Your task to perform on an android device: See recent photos Image 0: 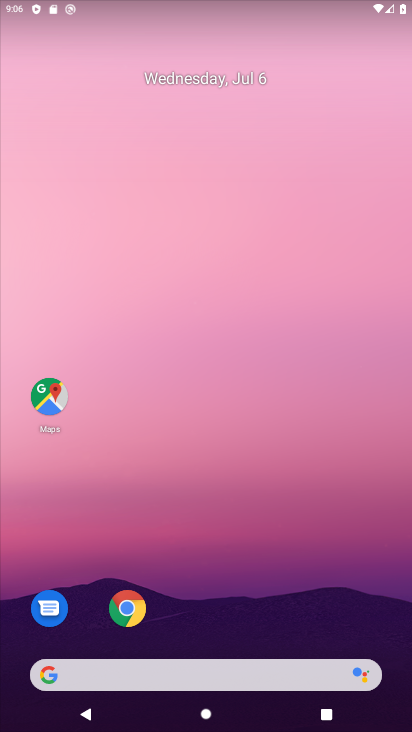
Step 0: drag from (194, 653) to (184, 61)
Your task to perform on an android device: See recent photos Image 1: 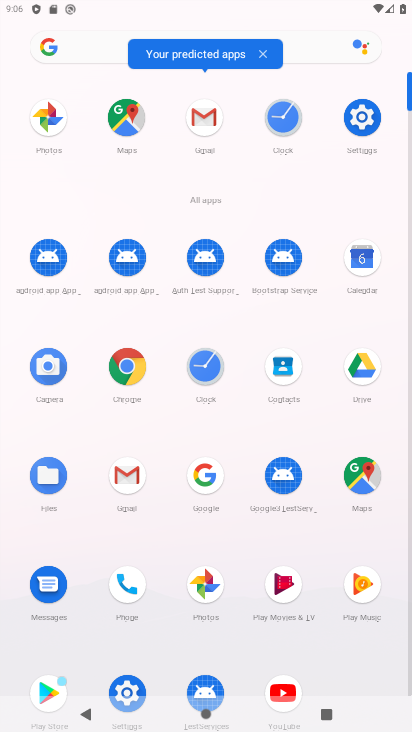
Step 1: drag from (201, 663) to (121, 244)
Your task to perform on an android device: See recent photos Image 2: 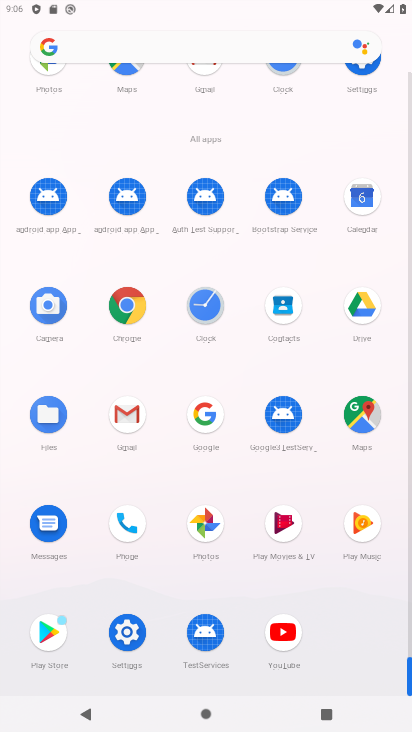
Step 2: click (196, 533)
Your task to perform on an android device: See recent photos Image 3: 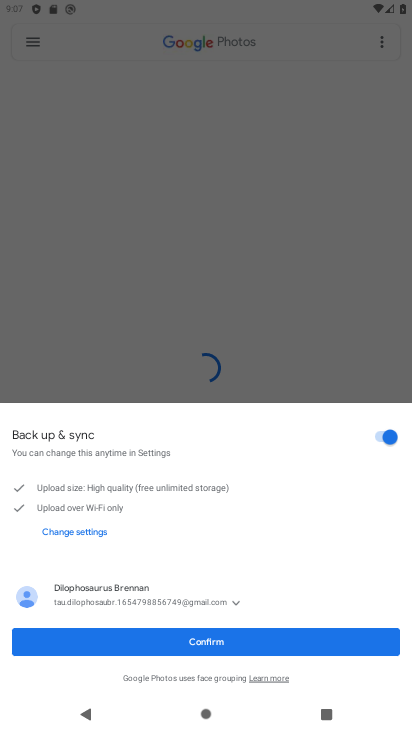
Step 3: click (196, 655)
Your task to perform on an android device: See recent photos Image 4: 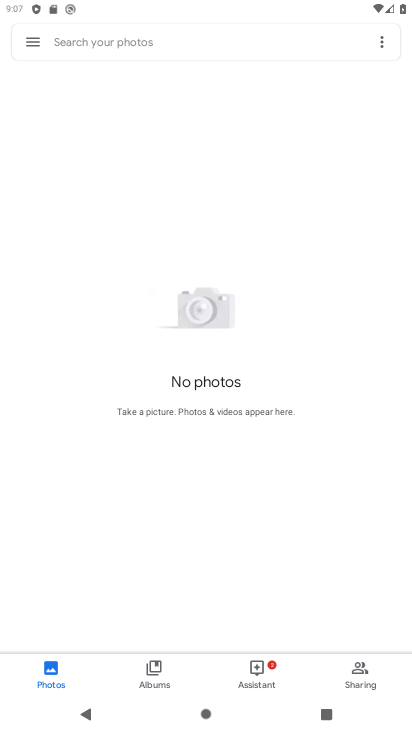
Step 4: task complete